Your task to perform on an android device: What's the weather going to be tomorrow? Image 0: 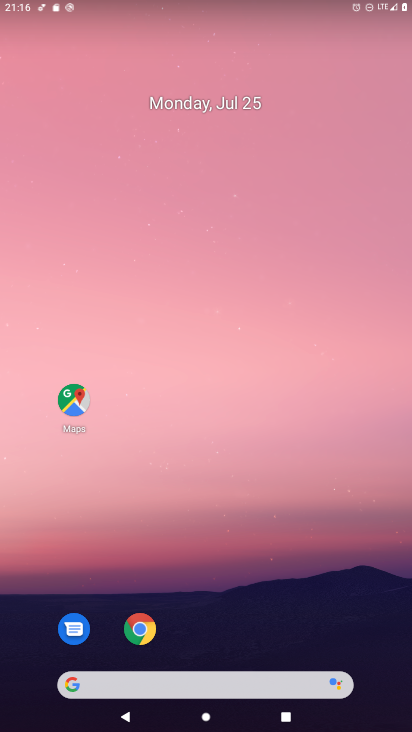
Step 0: drag from (193, 684) to (218, 135)
Your task to perform on an android device: What's the weather going to be tomorrow? Image 1: 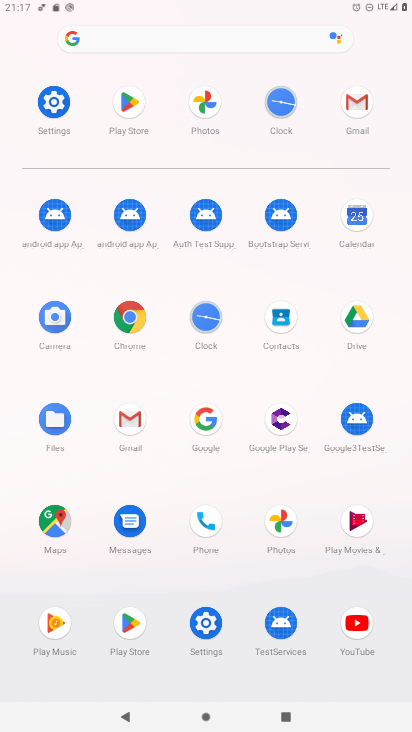
Step 1: click (129, 317)
Your task to perform on an android device: What's the weather going to be tomorrow? Image 2: 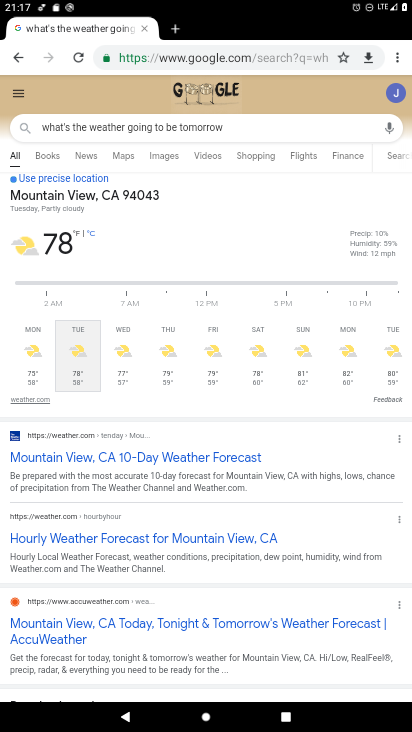
Step 2: task complete